Your task to perform on an android device: turn off wifi Image 0: 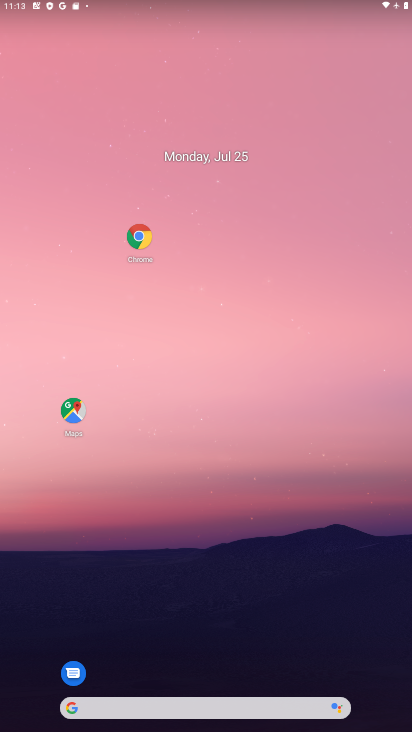
Step 0: drag from (259, 657) to (242, 232)
Your task to perform on an android device: turn off wifi Image 1: 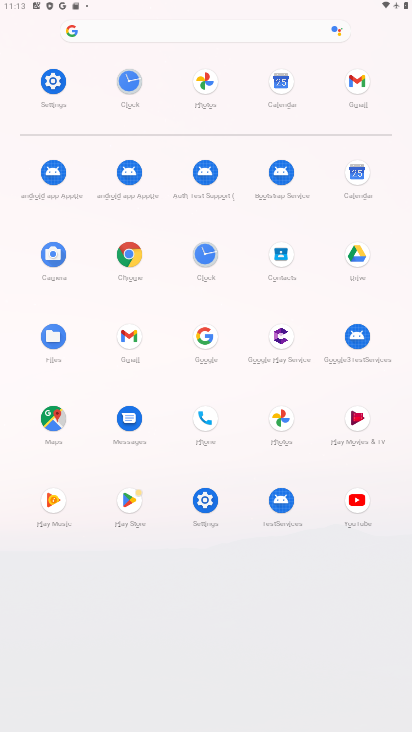
Step 1: click (40, 82)
Your task to perform on an android device: turn off wifi Image 2: 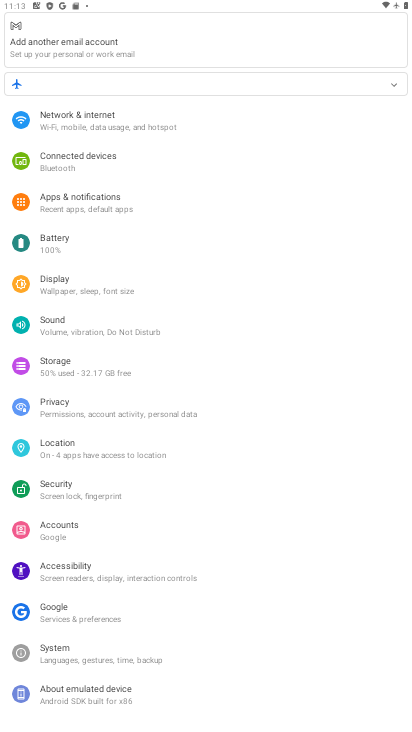
Step 2: click (103, 113)
Your task to perform on an android device: turn off wifi Image 3: 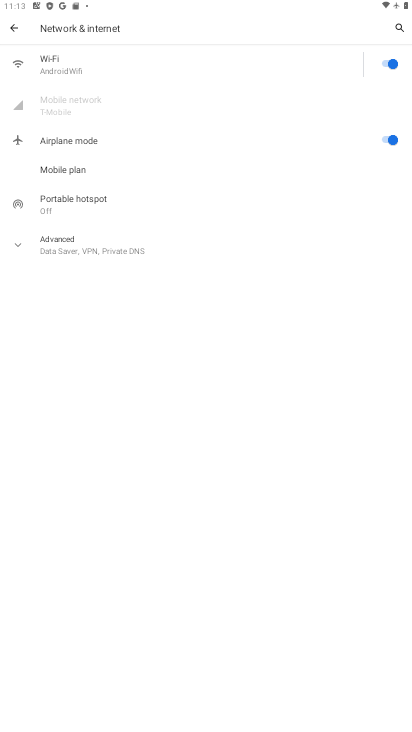
Step 3: task complete